Your task to perform on an android device: Open Android settings Image 0: 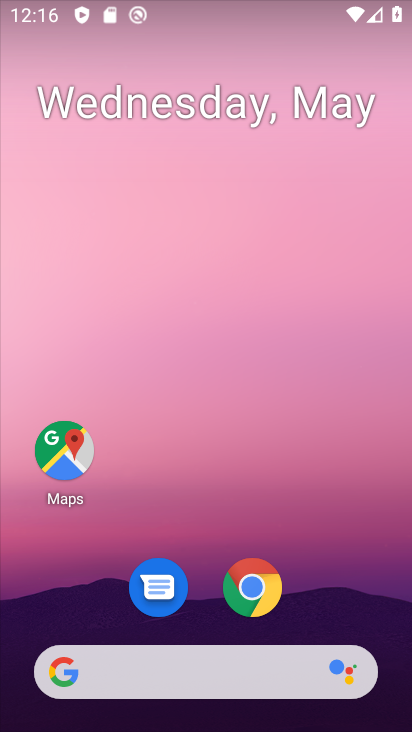
Step 0: drag from (63, 641) to (164, 160)
Your task to perform on an android device: Open Android settings Image 1: 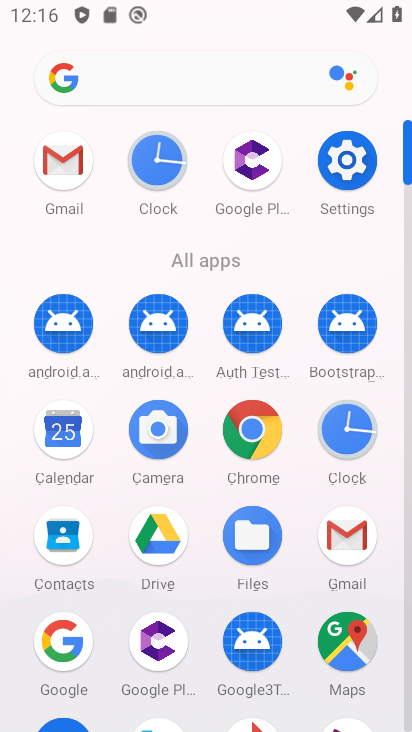
Step 1: click (356, 157)
Your task to perform on an android device: Open Android settings Image 2: 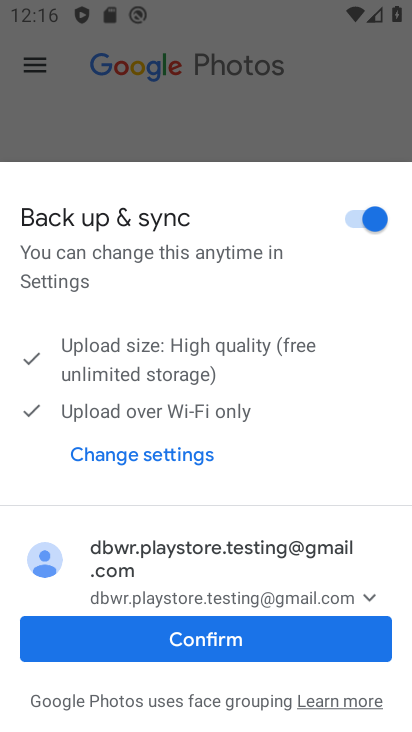
Step 2: press back button
Your task to perform on an android device: Open Android settings Image 3: 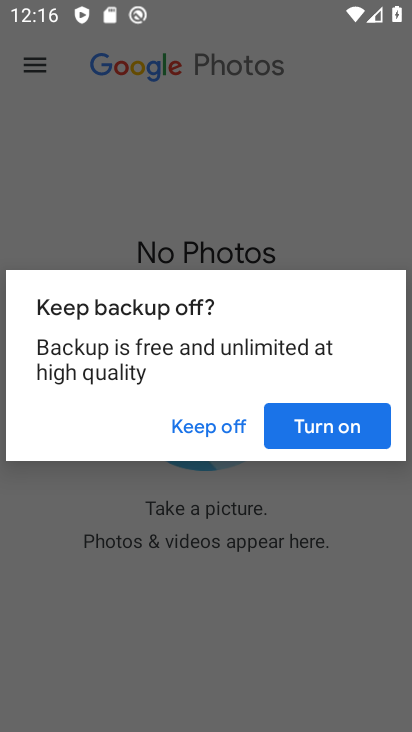
Step 3: press home button
Your task to perform on an android device: Open Android settings Image 4: 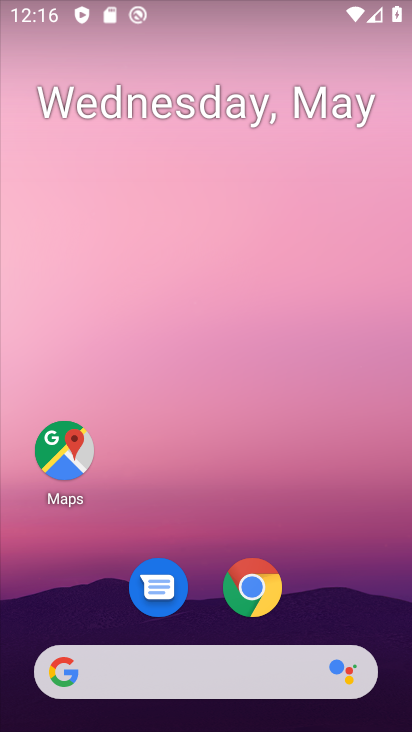
Step 4: drag from (60, 602) to (213, 126)
Your task to perform on an android device: Open Android settings Image 5: 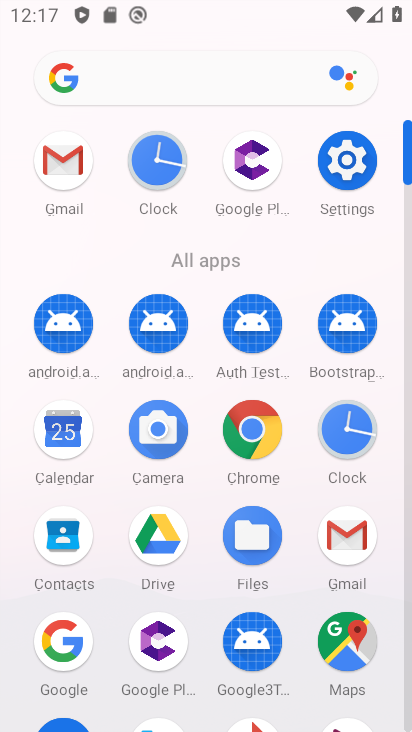
Step 5: click (346, 163)
Your task to perform on an android device: Open Android settings Image 6: 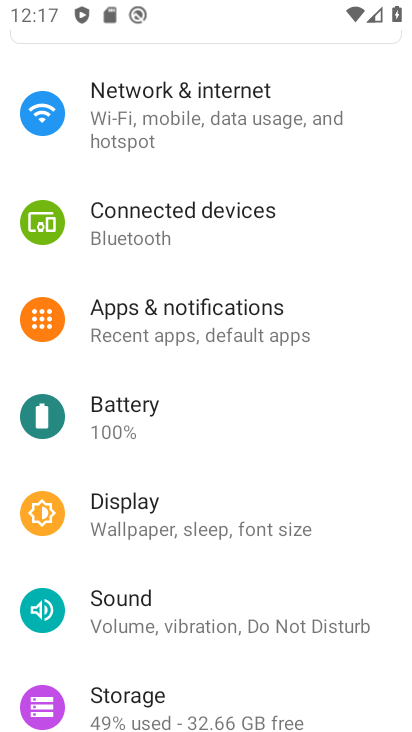
Step 6: task complete